Your task to perform on an android device: check battery use Image 0: 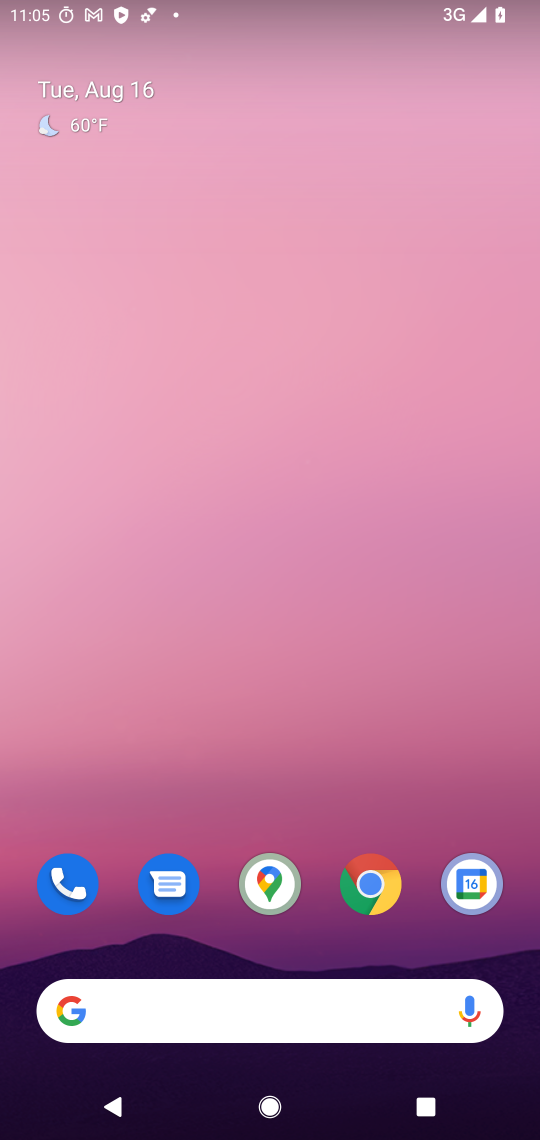
Step 0: drag from (217, 944) to (217, 153)
Your task to perform on an android device: check battery use Image 1: 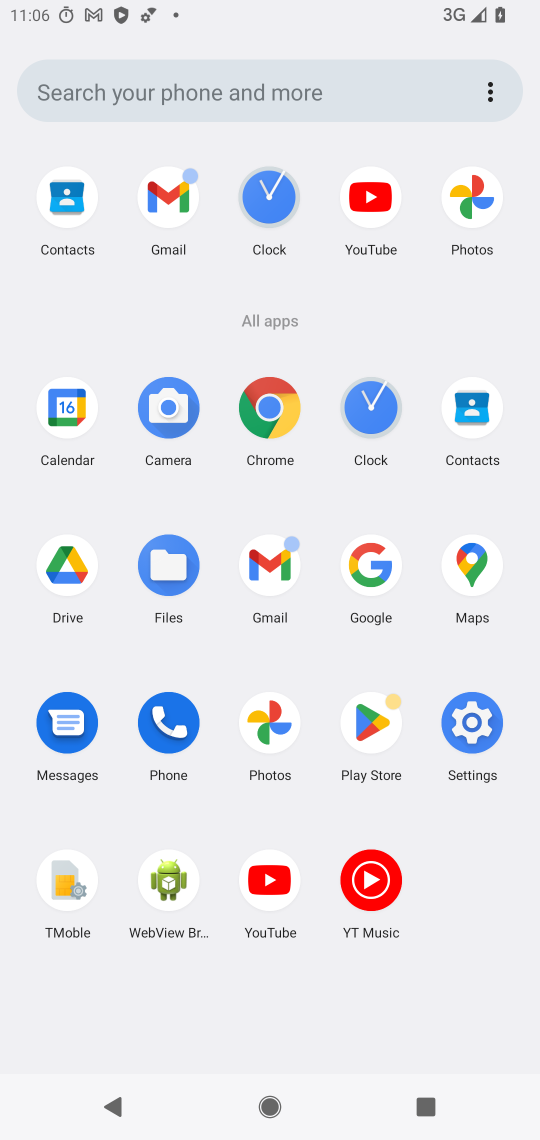
Step 1: click (461, 730)
Your task to perform on an android device: check battery use Image 2: 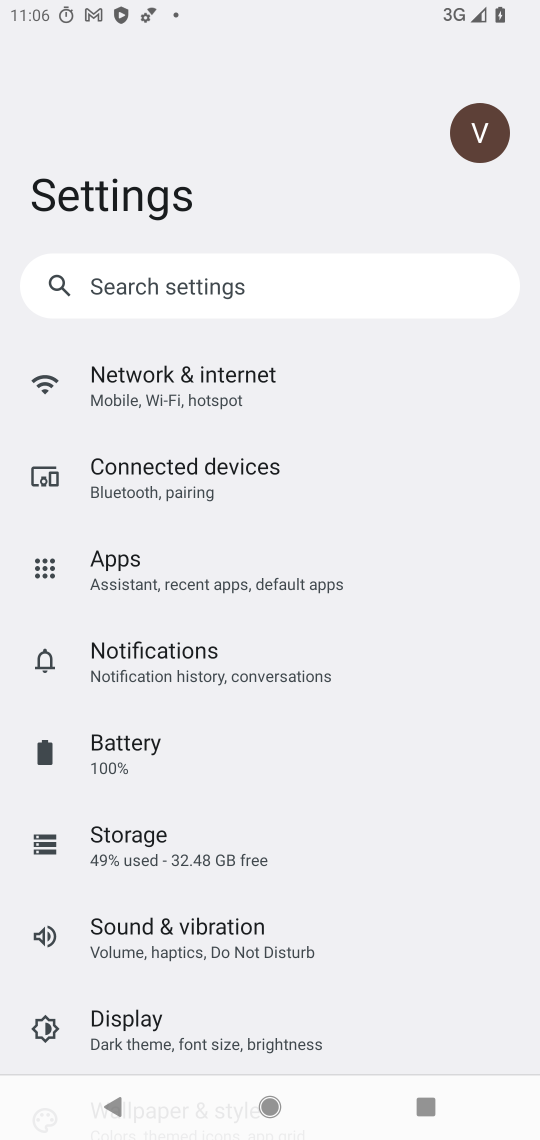
Step 2: click (122, 740)
Your task to perform on an android device: check battery use Image 3: 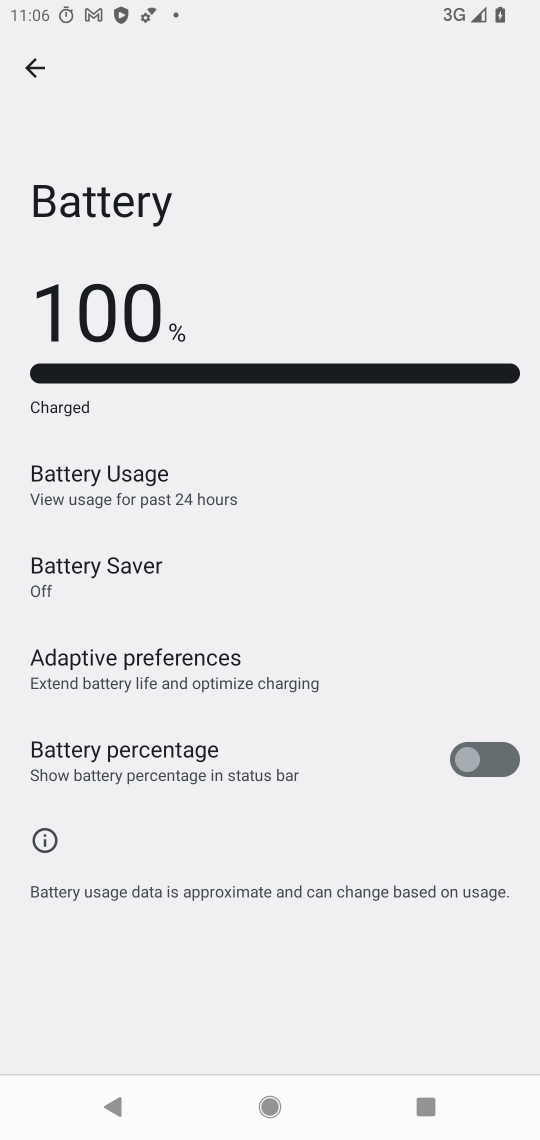
Step 3: task complete